Your task to perform on an android device: Open settings on Google Maps Image 0: 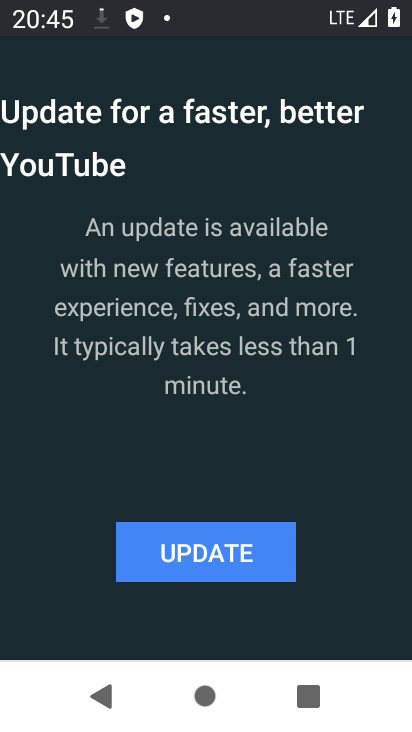
Step 0: press back button
Your task to perform on an android device: Open settings on Google Maps Image 1: 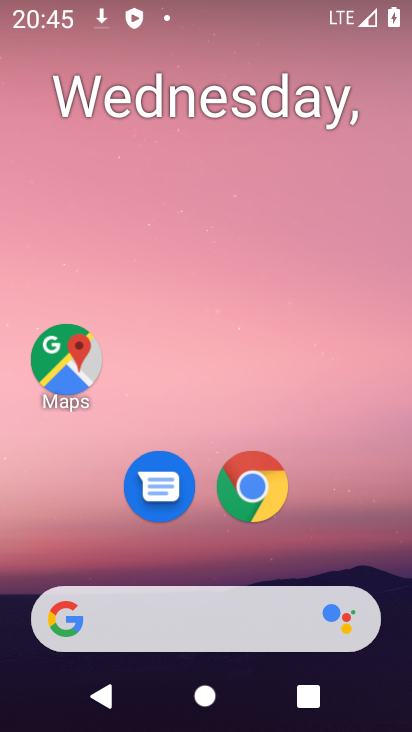
Step 1: click (74, 355)
Your task to perform on an android device: Open settings on Google Maps Image 2: 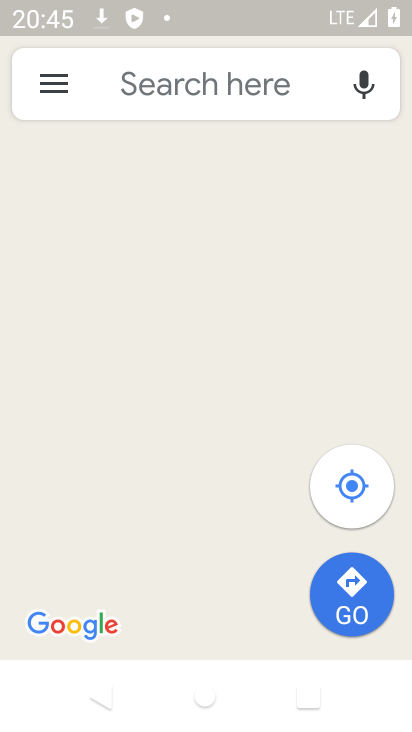
Step 2: click (33, 73)
Your task to perform on an android device: Open settings on Google Maps Image 3: 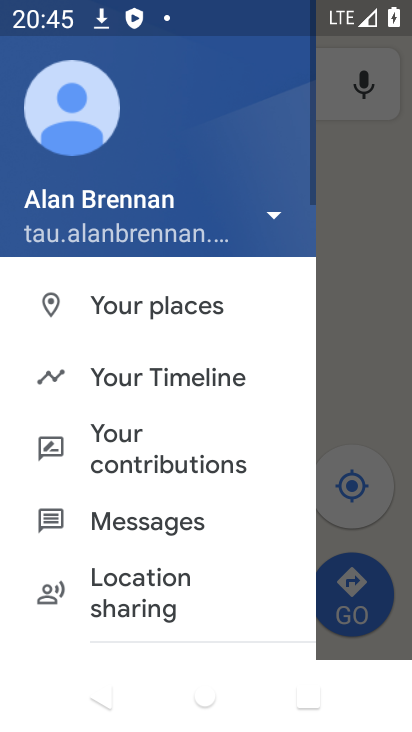
Step 3: drag from (138, 582) to (177, 14)
Your task to perform on an android device: Open settings on Google Maps Image 4: 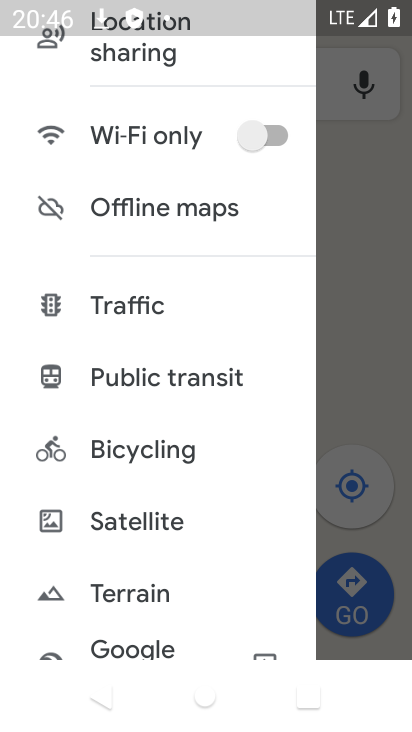
Step 4: drag from (119, 563) to (234, 0)
Your task to perform on an android device: Open settings on Google Maps Image 5: 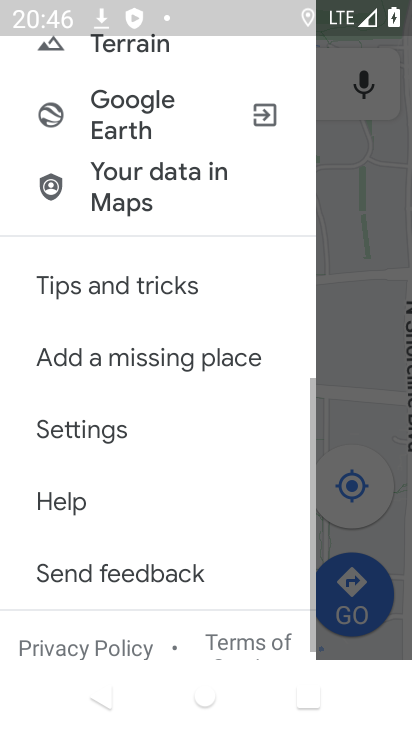
Step 5: click (75, 430)
Your task to perform on an android device: Open settings on Google Maps Image 6: 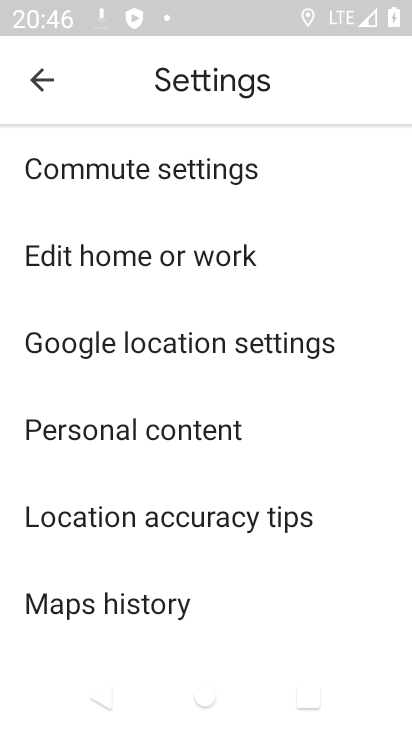
Step 6: click (37, 72)
Your task to perform on an android device: Open settings on Google Maps Image 7: 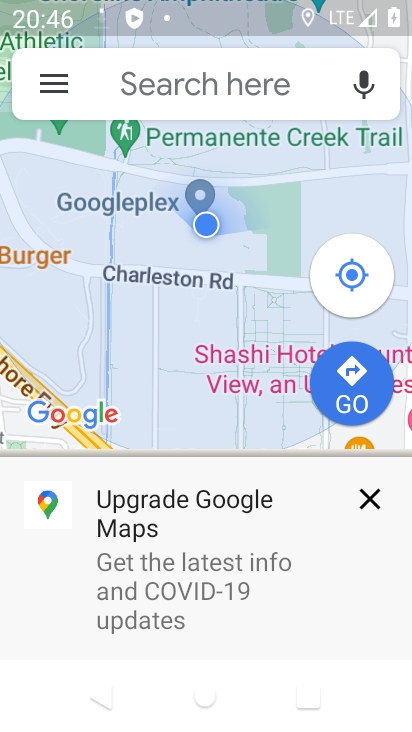
Step 7: task complete